Your task to perform on an android device: Open sound settings Image 0: 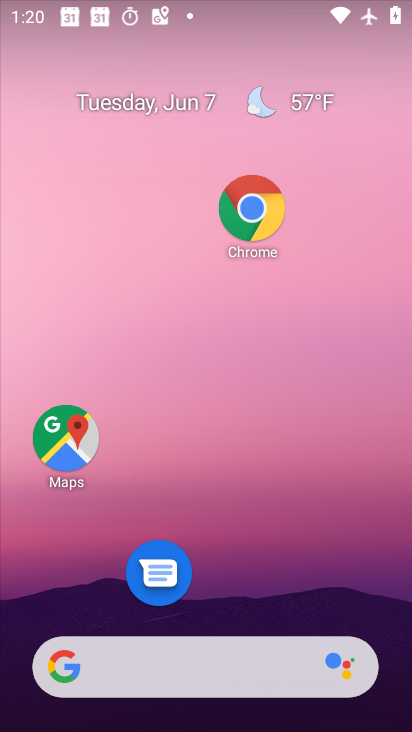
Step 0: drag from (210, 614) to (194, 200)
Your task to perform on an android device: Open sound settings Image 1: 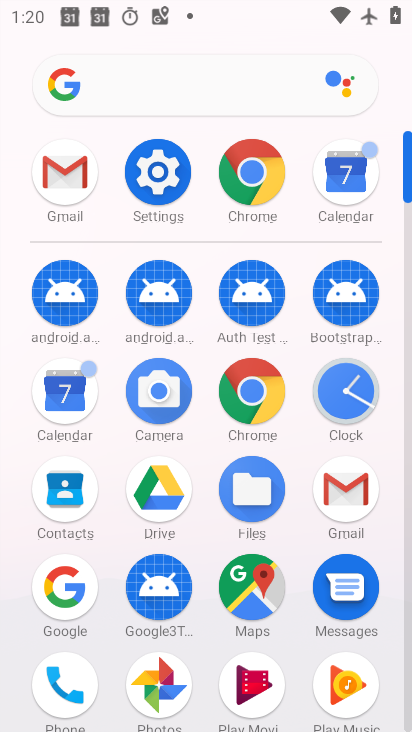
Step 1: click (152, 163)
Your task to perform on an android device: Open sound settings Image 2: 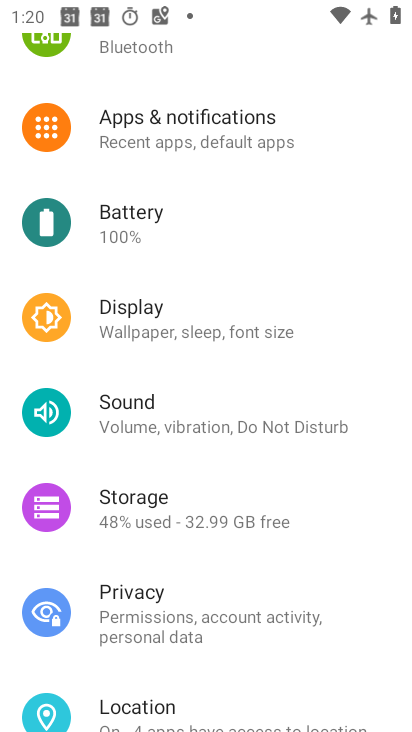
Step 2: click (160, 422)
Your task to perform on an android device: Open sound settings Image 3: 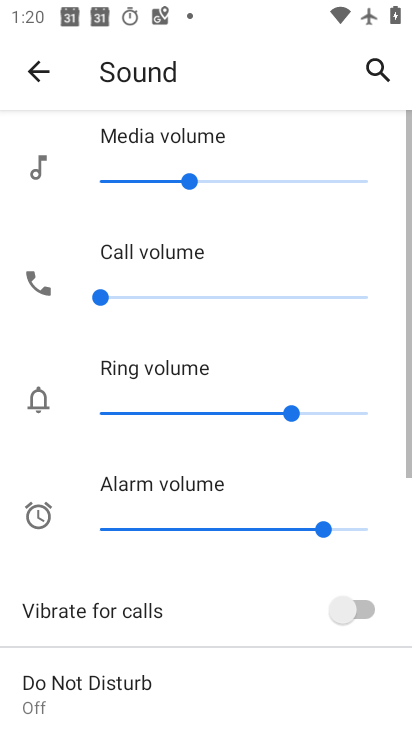
Step 3: task complete